Your task to perform on an android device: Add "razer blade" to the cart on amazon Image 0: 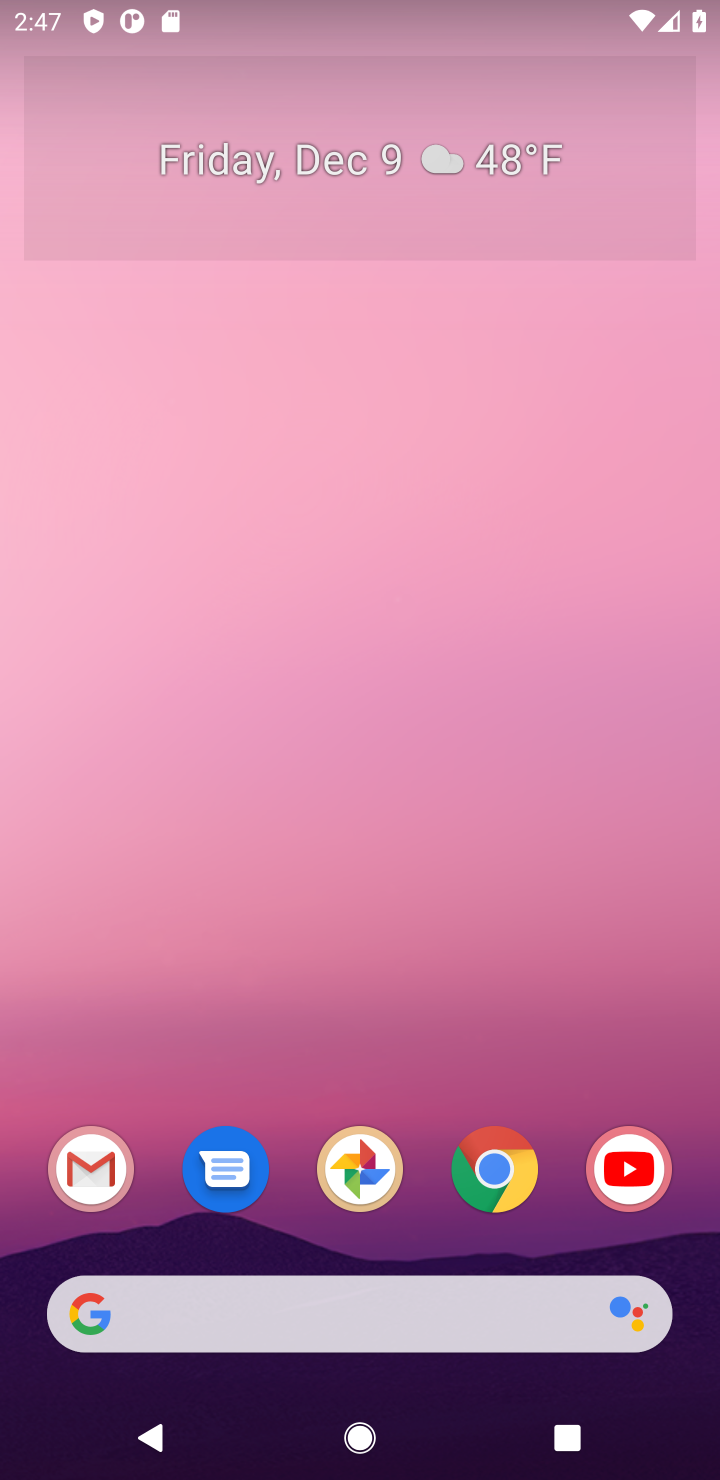
Step 0: click (480, 1176)
Your task to perform on an android device: Add "razer blade" to the cart on amazon Image 1: 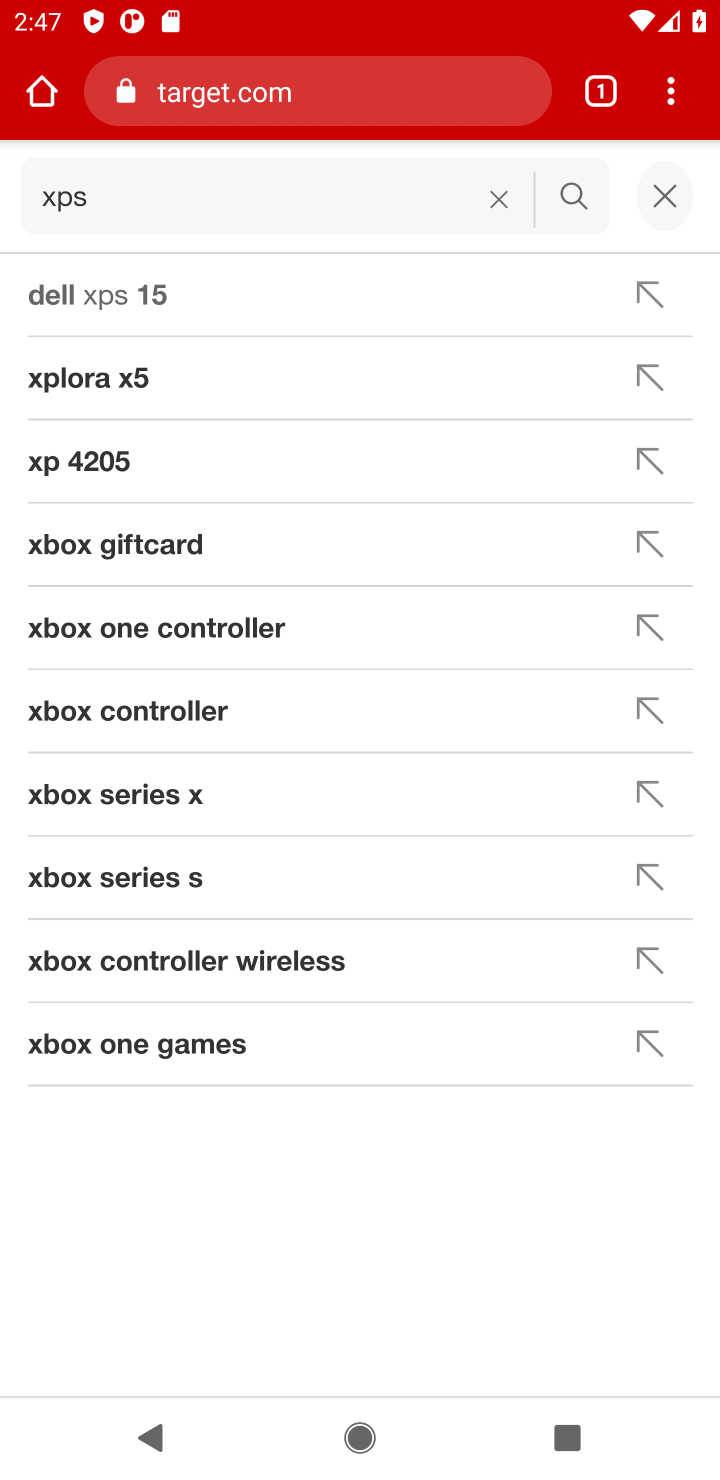
Step 1: click (434, 64)
Your task to perform on an android device: Add "razer blade" to the cart on amazon Image 2: 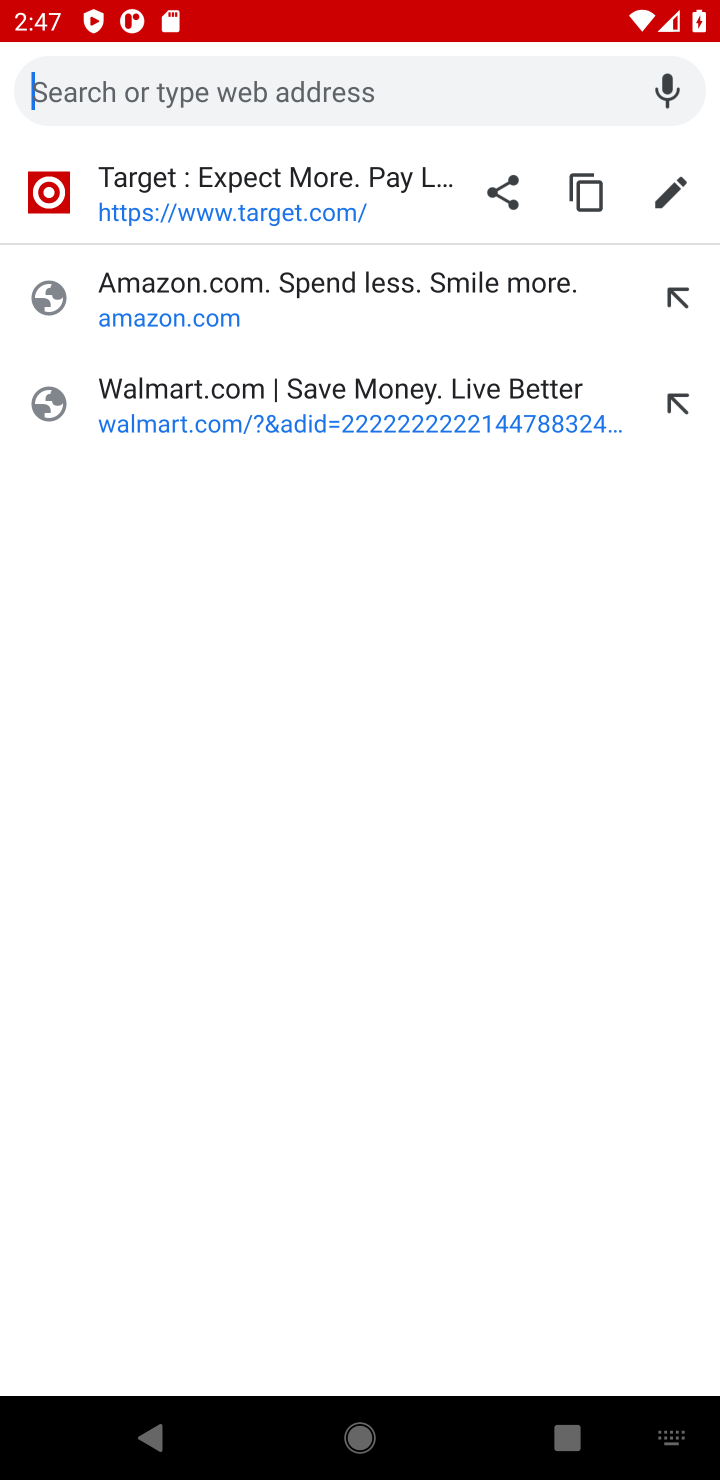
Step 2: click (216, 274)
Your task to perform on an android device: Add "razer blade" to the cart on amazon Image 3: 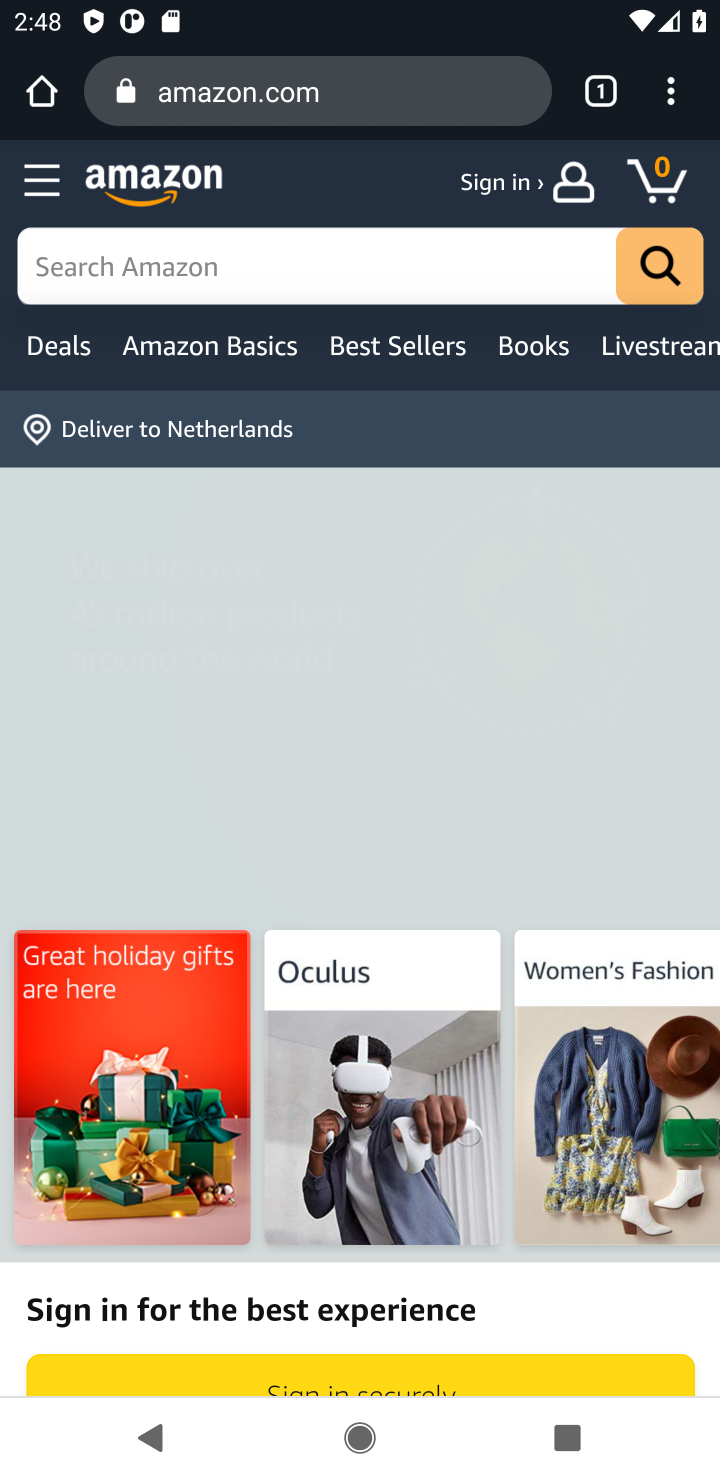
Step 3: click (474, 249)
Your task to perform on an android device: Add "razer blade" to the cart on amazon Image 4: 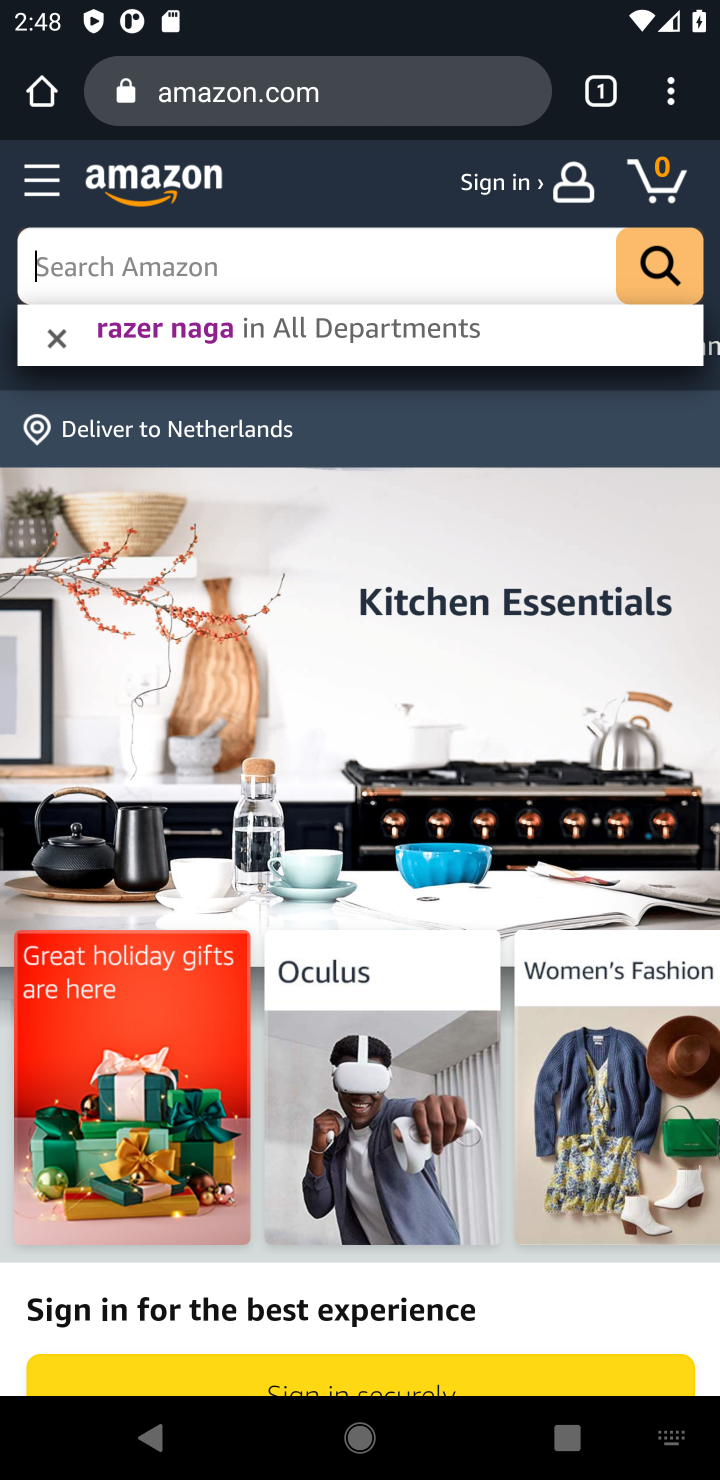
Step 4: press enter
Your task to perform on an android device: Add "razer blade" to the cart on amazon Image 5: 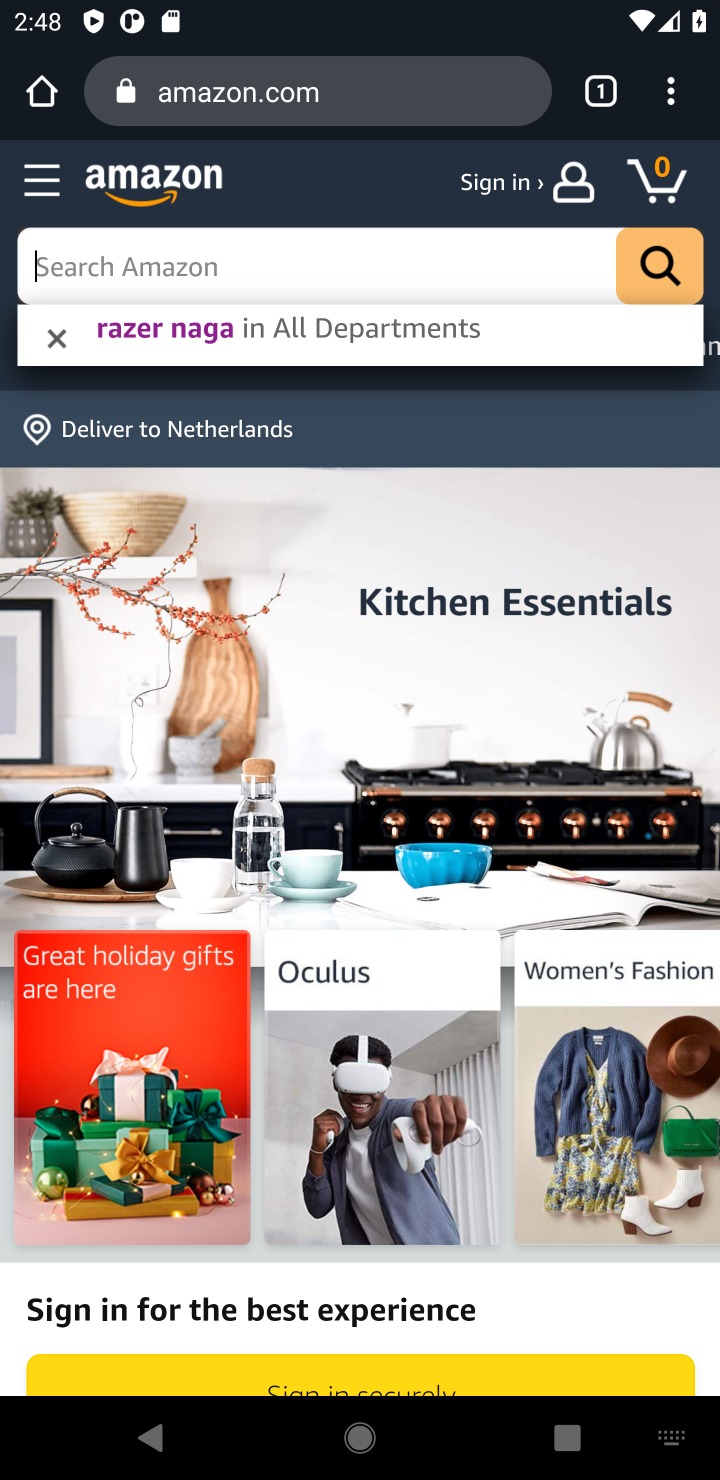
Step 5: type "razer blade"
Your task to perform on an android device: Add "razer blade" to the cart on amazon Image 6: 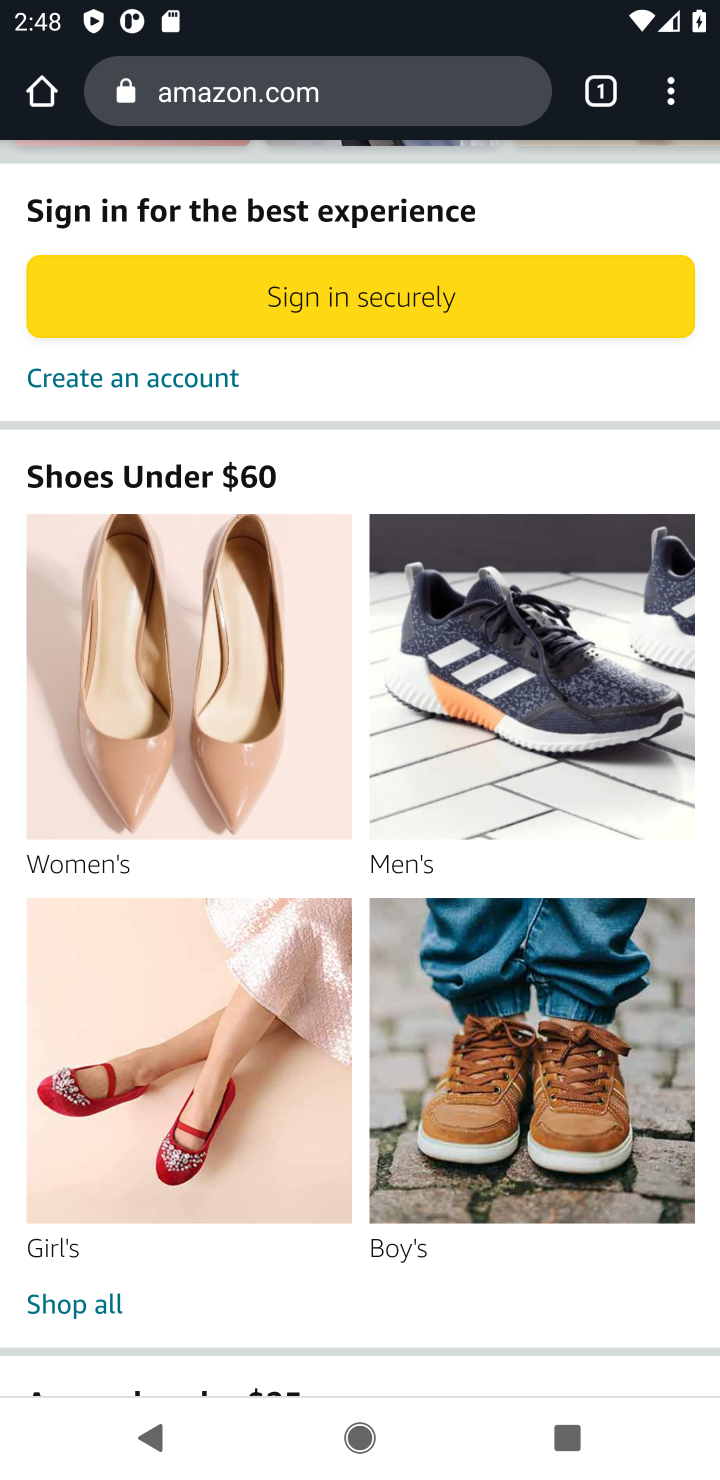
Step 6: press back button
Your task to perform on an android device: Add "razer blade" to the cart on amazon Image 7: 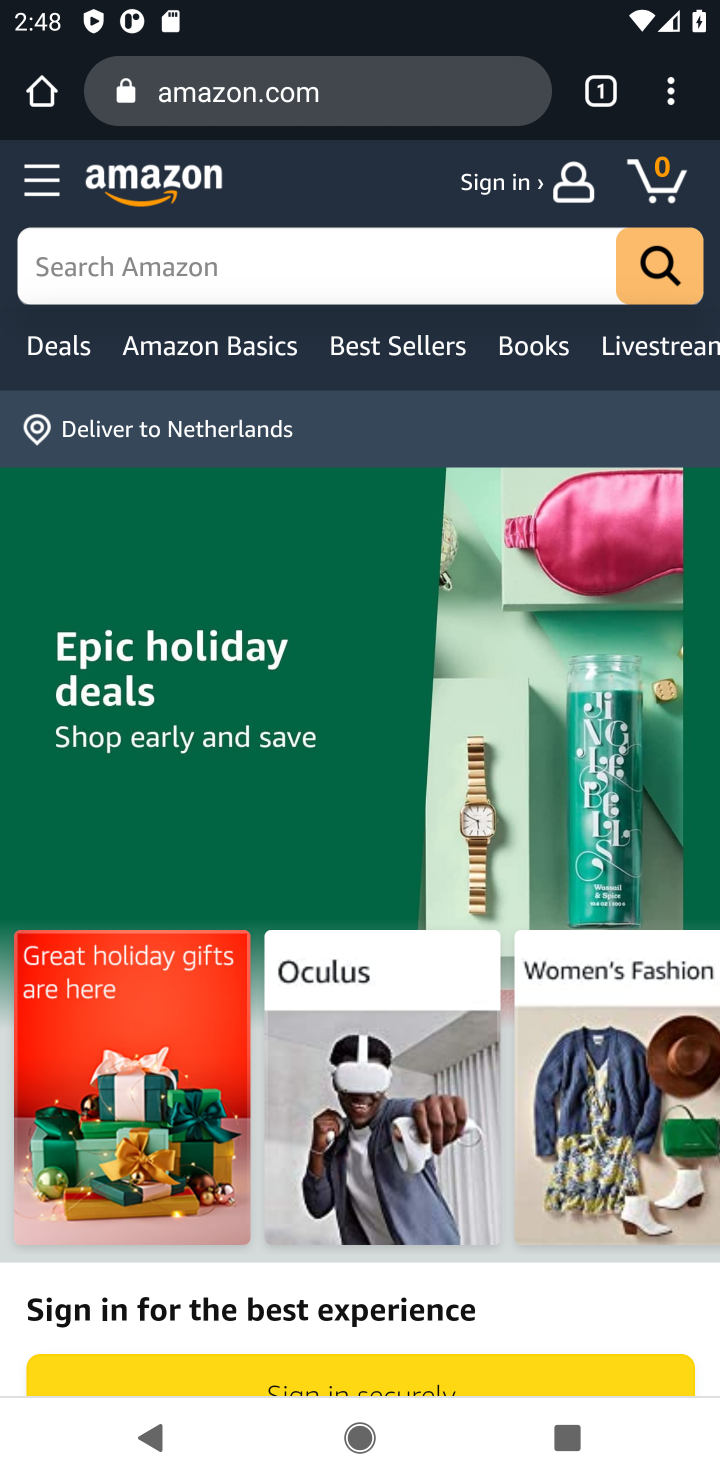
Step 7: click (491, 280)
Your task to perform on an android device: Add "razer blade" to the cart on amazon Image 8: 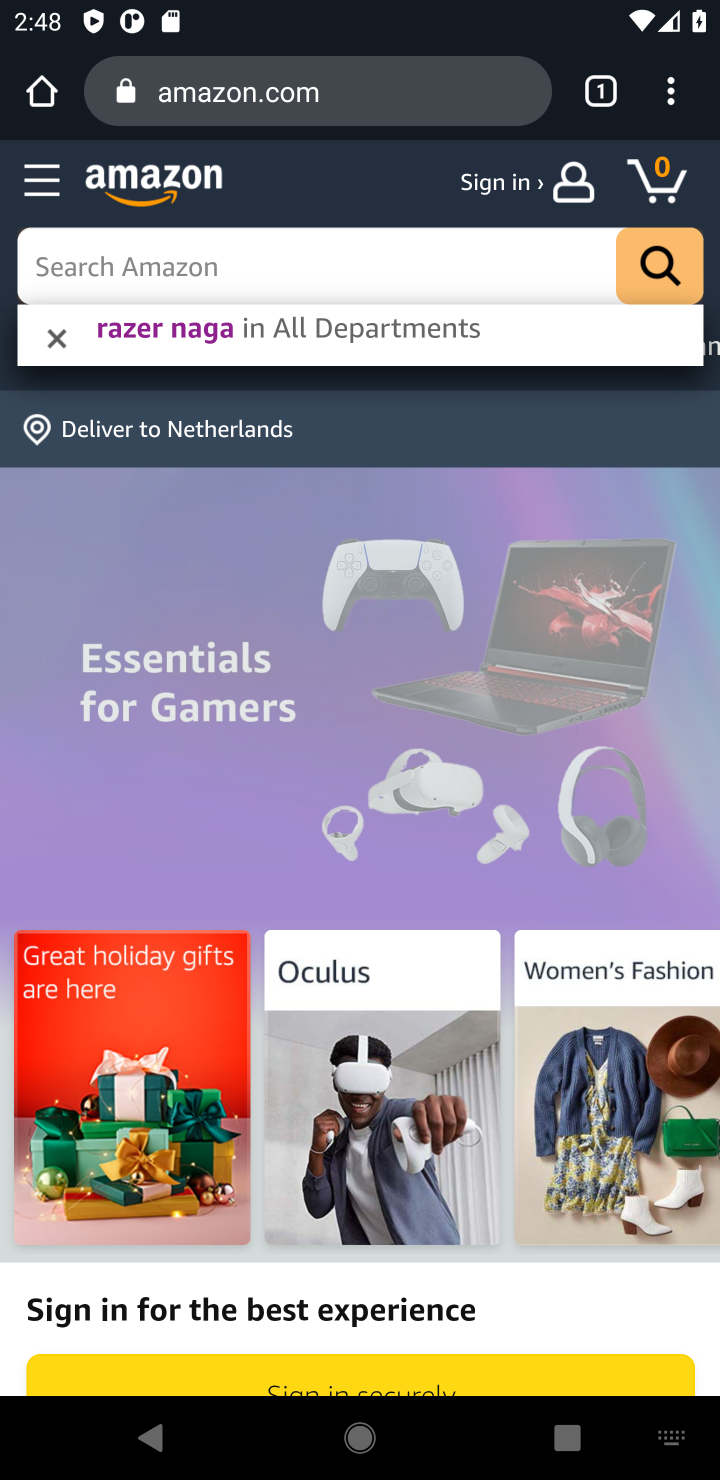
Step 8: type "razer blade"
Your task to perform on an android device: Add "razer blade" to the cart on amazon Image 9: 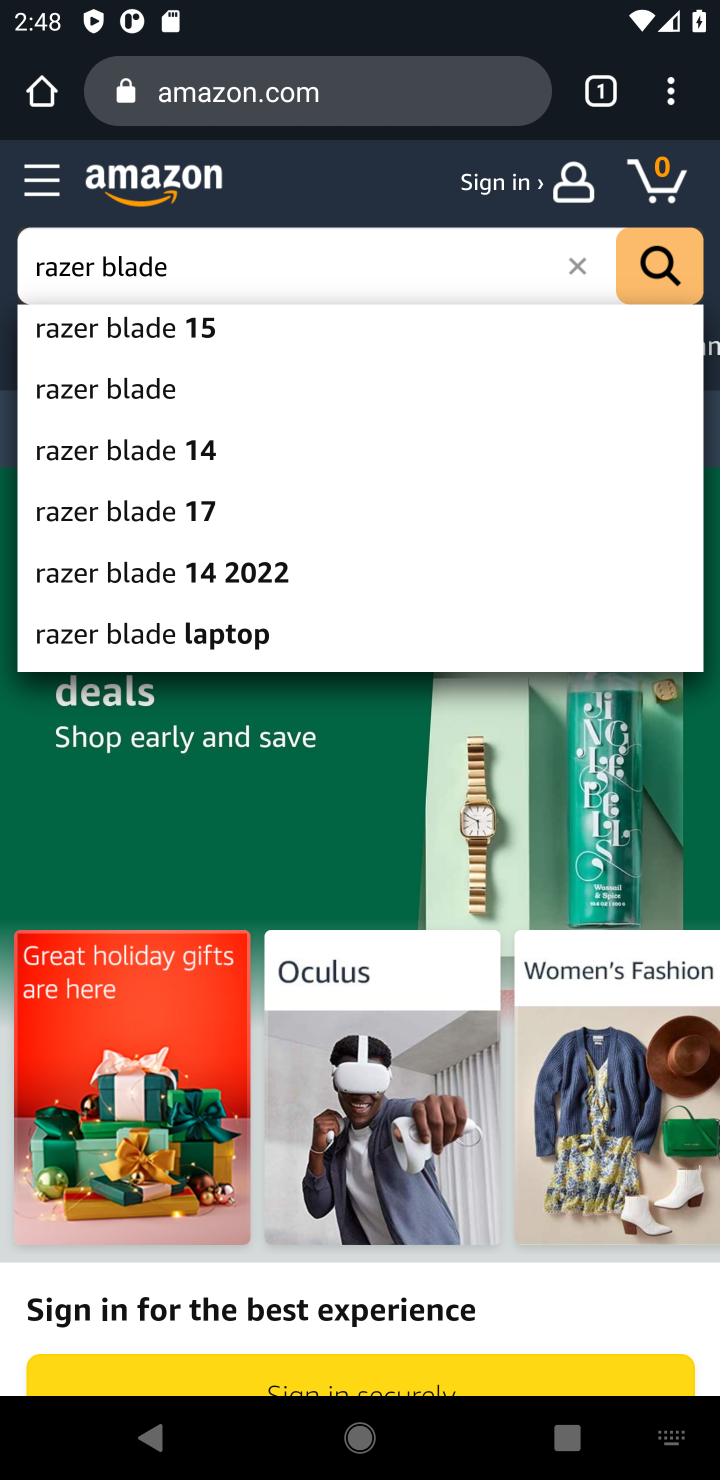
Step 9: click (106, 379)
Your task to perform on an android device: Add "razer blade" to the cart on amazon Image 10: 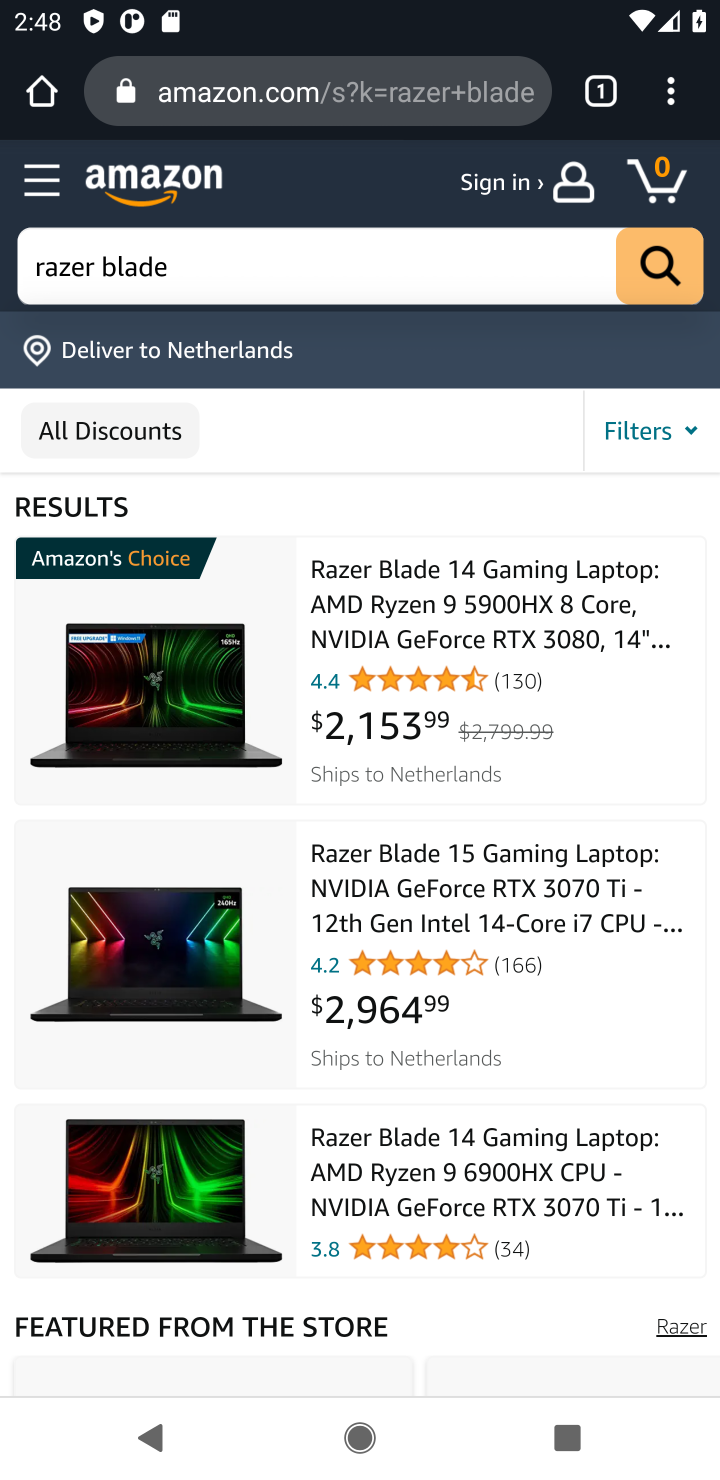
Step 10: click (208, 734)
Your task to perform on an android device: Add "razer blade" to the cart on amazon Image 11: 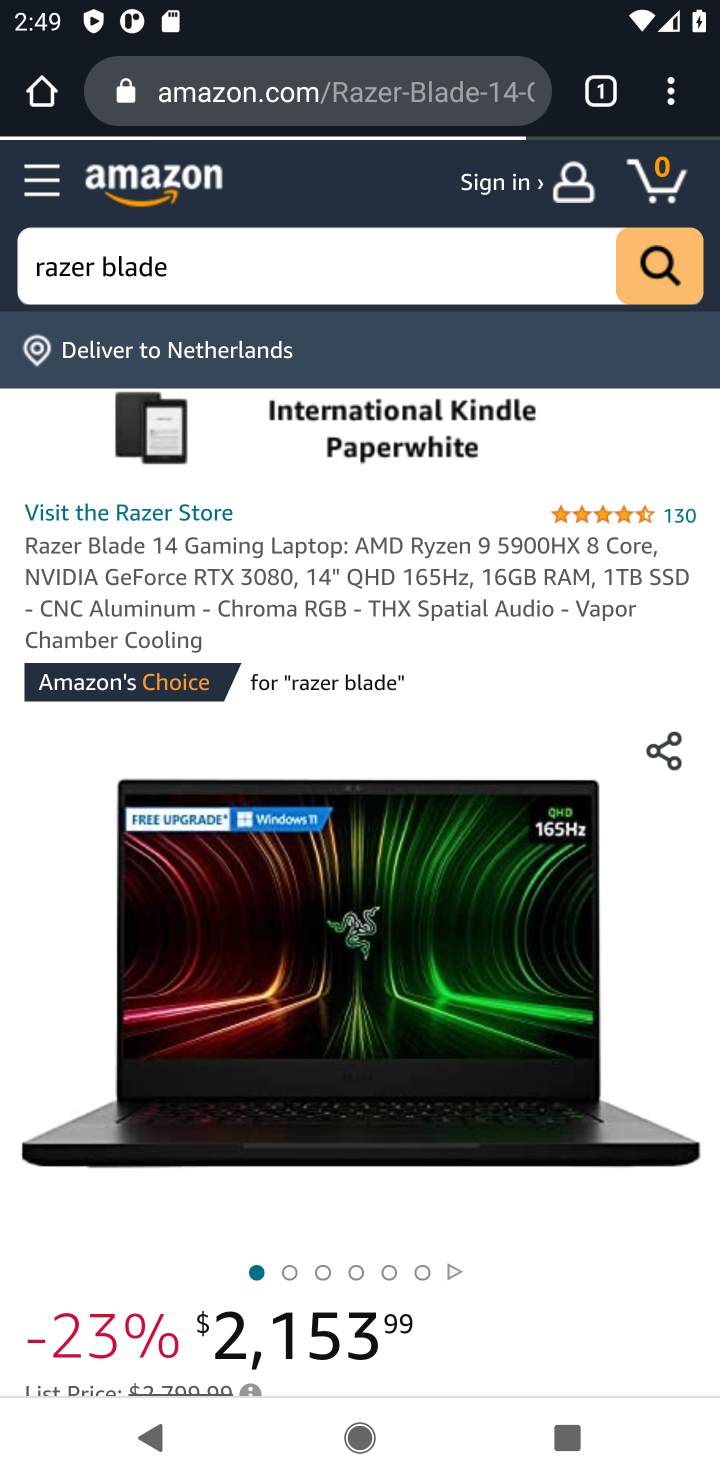
Step 11: drag from (559, 1244) to (684, 307)
Your task to perform on an android device: Add "razer blade" to the cart on amazon Image 12: 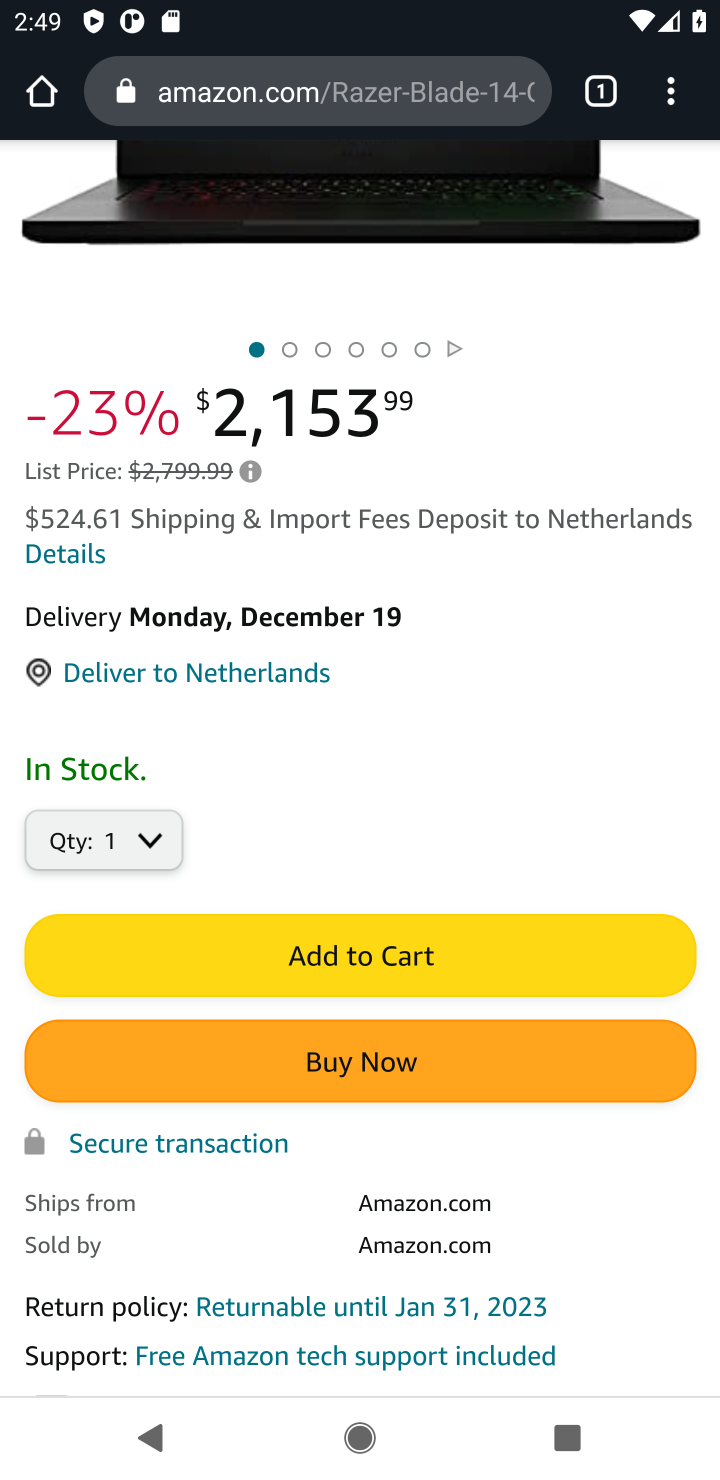
Step 12: click (384, 964)
Your task to perform on an android device: Add "razer blade" to the cart on amazon Image 13: 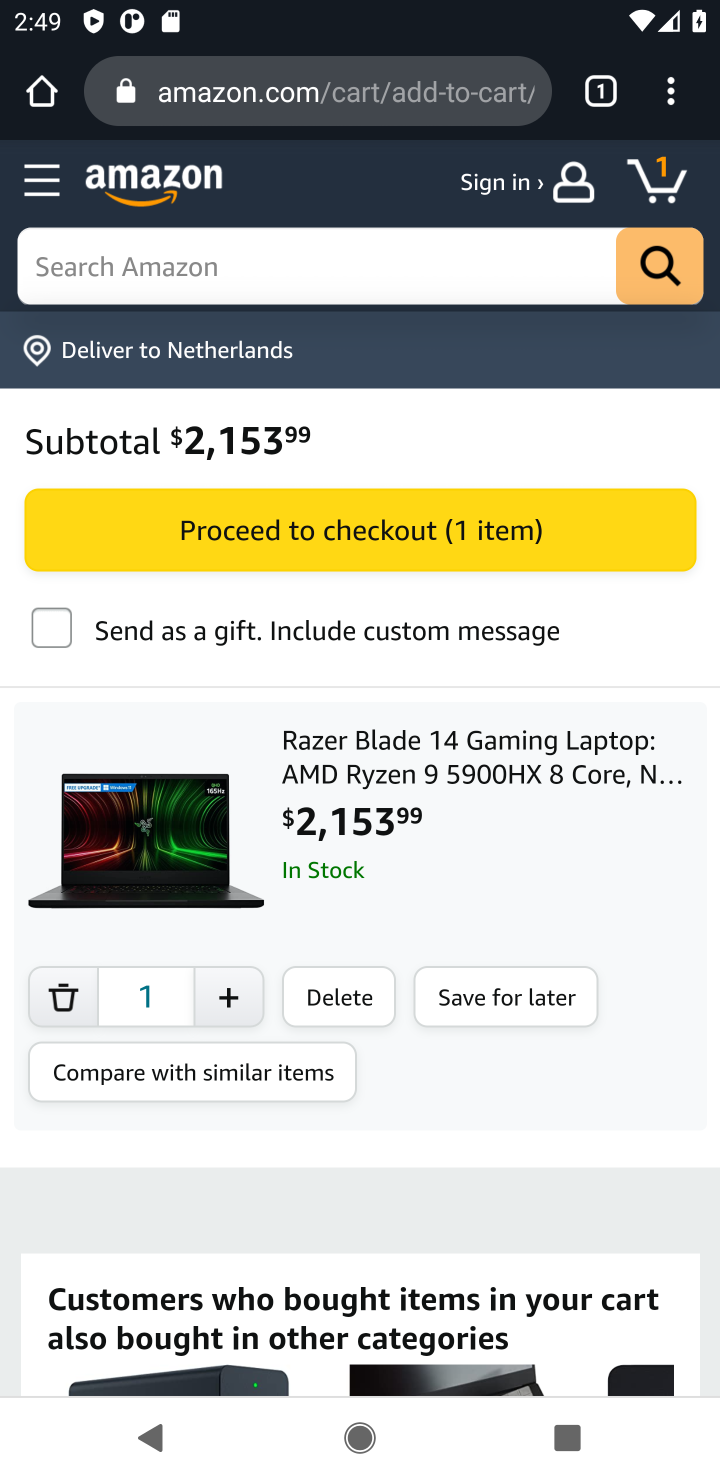
Step 13: task complete